Your task to perform on an android device: Go to CNN.com Image 0: 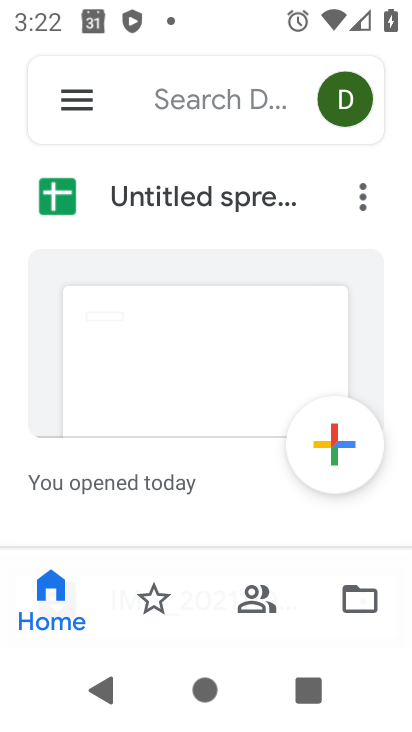
Step 0: press home button
Your task to perform on an android device: Go to CNN.com Image 1: 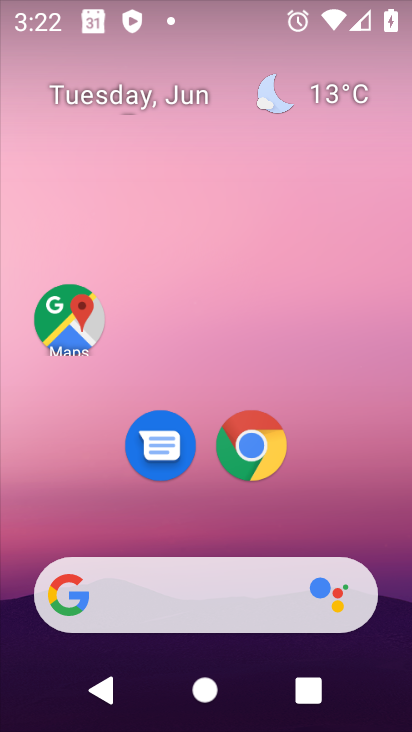
Step 1: click (254, 441)
Your task to perform on an android device: Go to CNN.com Image 2: 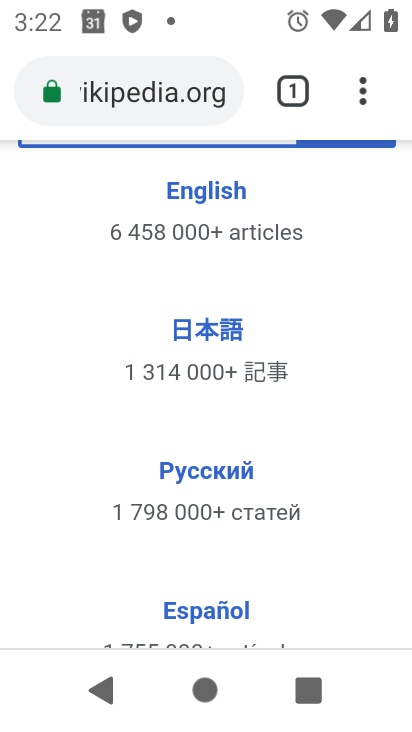
Step 2: click (191, 66)
Your task to perform on an android device: Go to CNN.com Image 3: 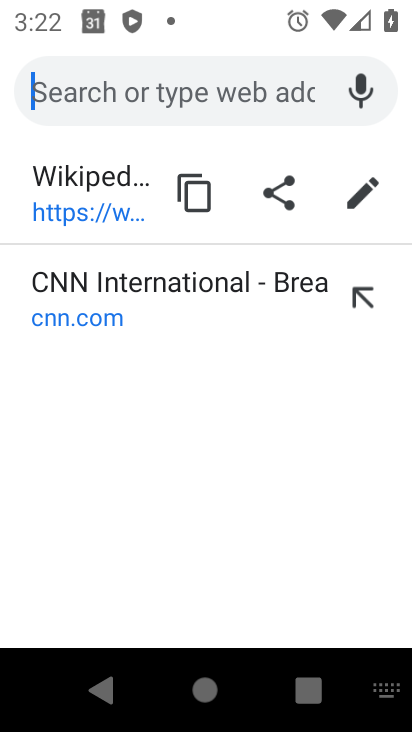
Step 3: type "cnn.com"
Your task to perform on an android device: Go to CNN.com Image 4: 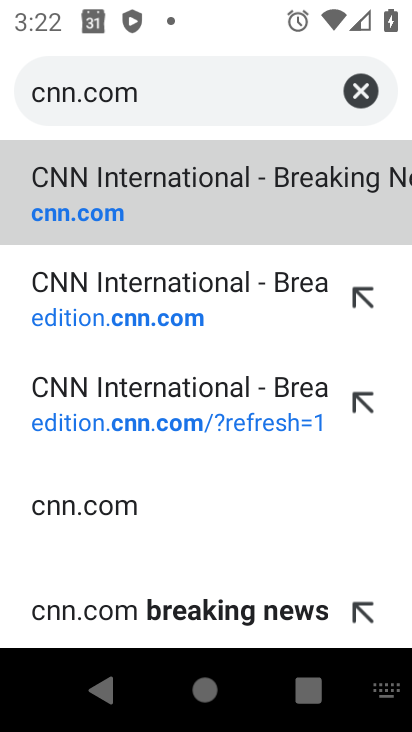
Step 4: click (119, 202)
Your task to perform on an android device: Go to CNN.com Image 5: 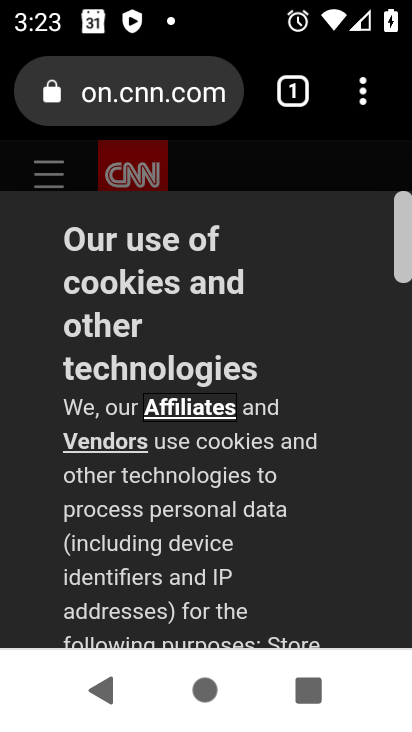
Step 5: task complete